Your task to perform on an android device: Open calendar and show me the fourth week of next month Image 0: 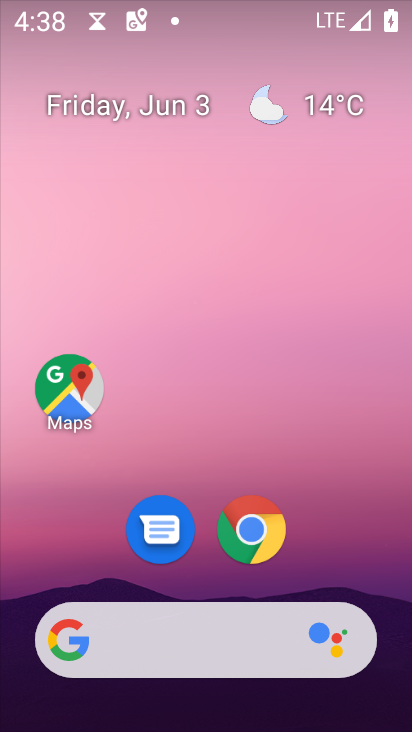
Step 0: drag from (364, 497) to (368, 29)
Your task to perform on an android device: Open calendar and show me the fourth week of next month Image 1: 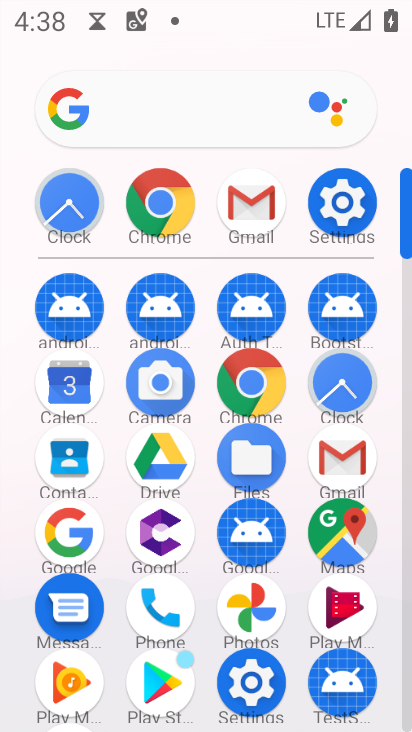
Step 1: click (81, 387)
Your task to perform on an android device: Open calendar and show me the fourth week of next month Image 2: 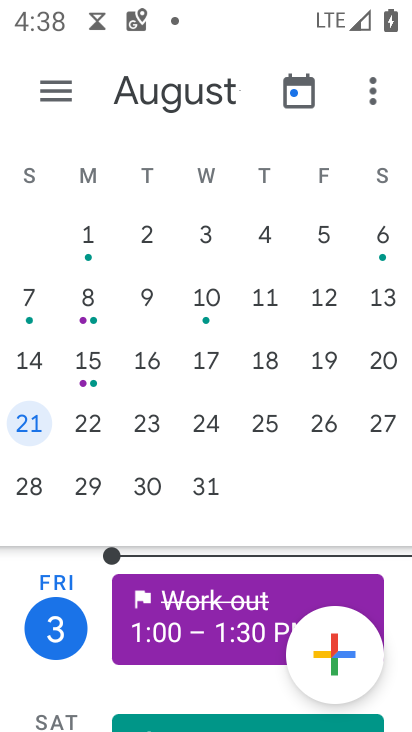
Step 2: drag from (391, 408) to (17, 326)
Your task to perform on an android device: Open calendar and show me the fourth week of next month Image 3: 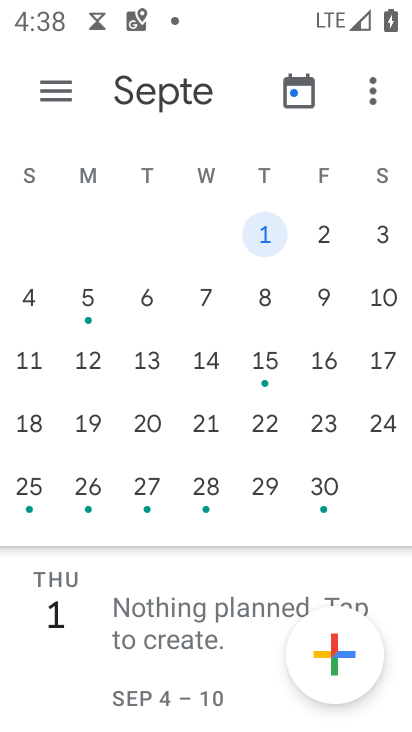
Step 3: click (203, 496)
Your task to perform on an android device: Open calendar and show me the fourth week of next month Image 4: 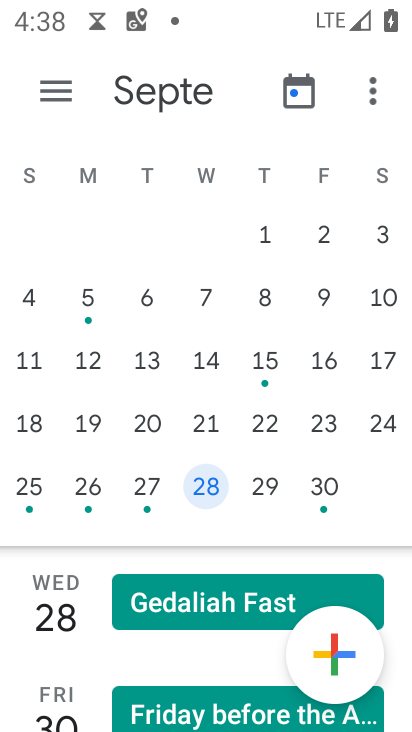
Step 4: task complete